Your task to perform on an android device: Search for panasonic triple a on newegg.com, select the first entry, and add it to the cart. Image 0: 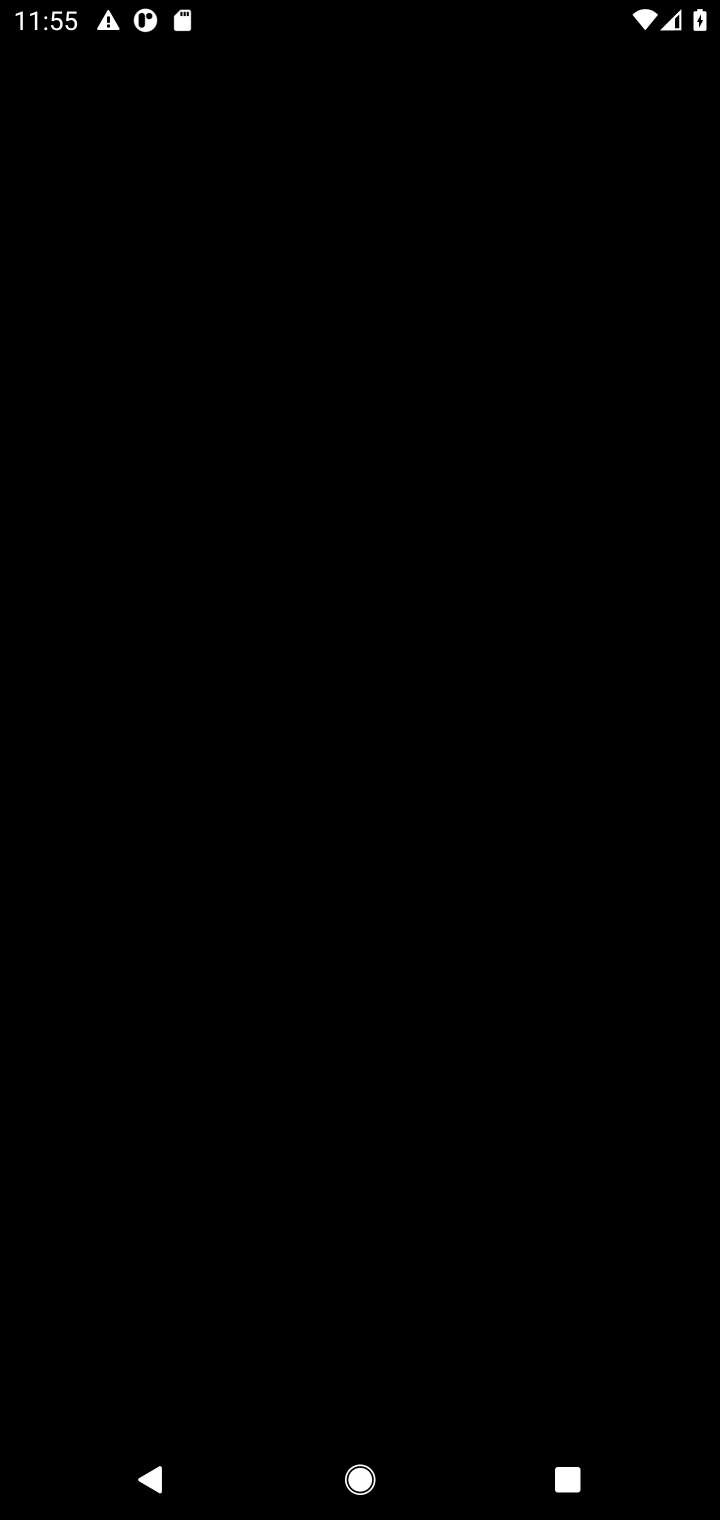
Step 0: press home button
Your task to perform on an android device: Search for panasonic triple a on newegg.com, select the first entry, and add it to the cart. Image 1: 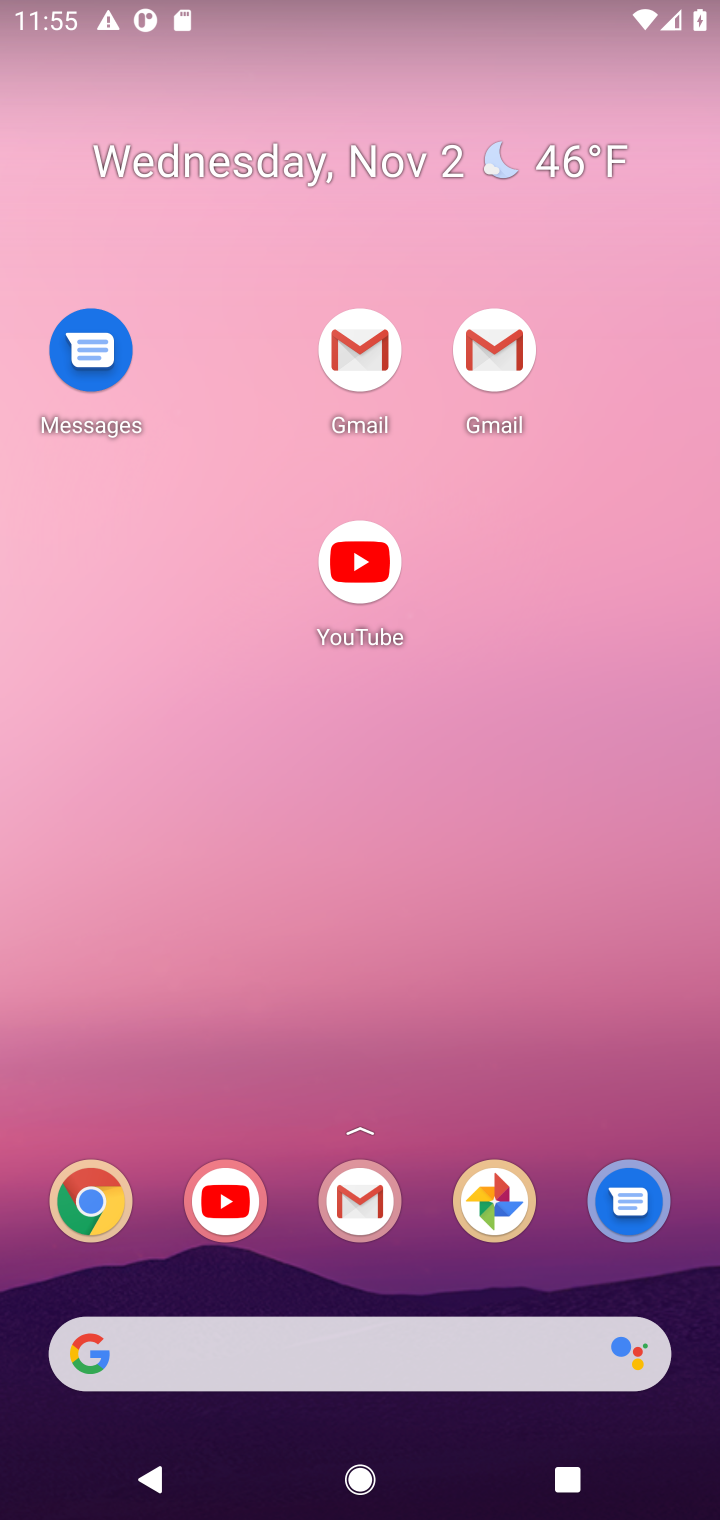
Step 1: drag from (394, 1294) to (315, 317)
Your task to perform on an android device: Search for panasonic triple a on newegg.com, select the first entry, and add it to the cart. Image 2: 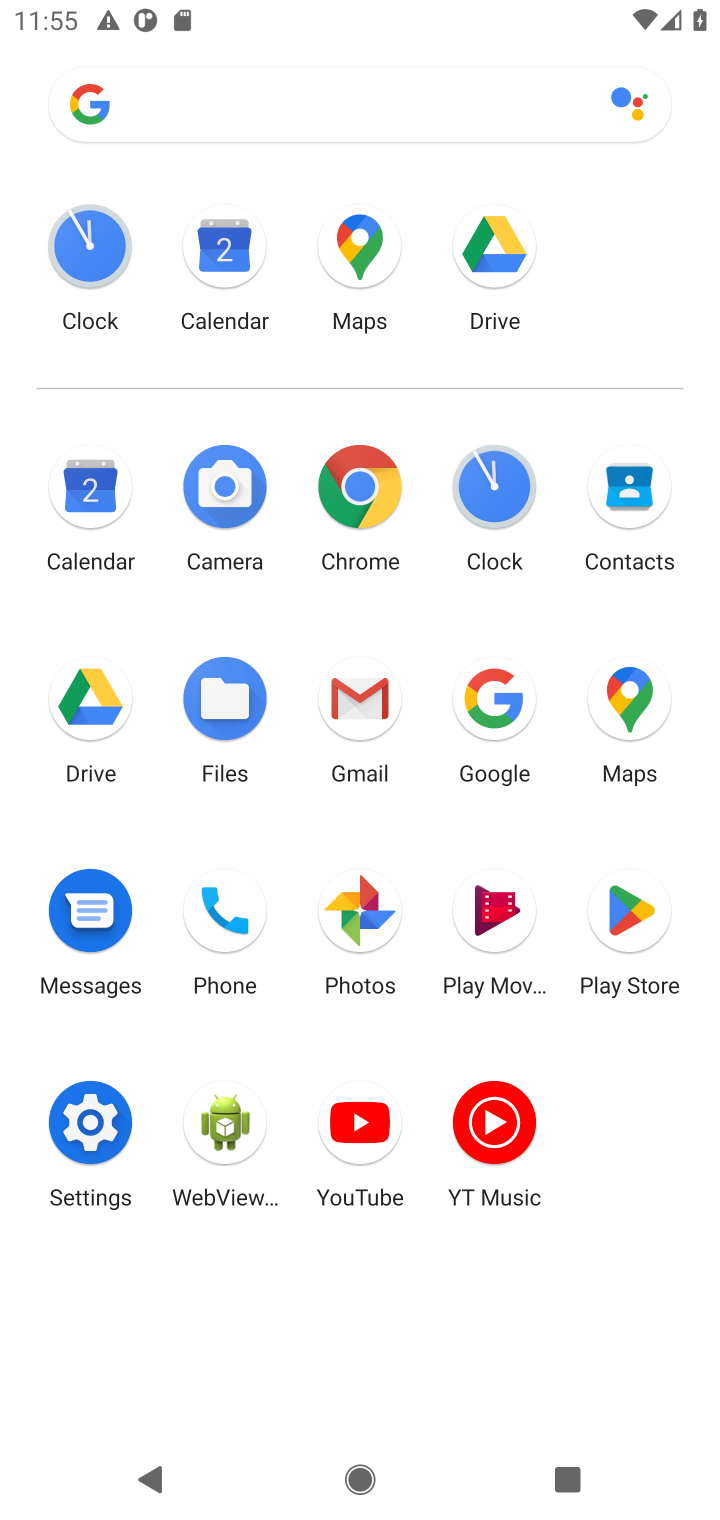
Step 2: click (366, 478)
Your task to perform on an android device: Search for panasonic triple a on newegg.com, select the first entry, and add it to the cart. Image 3: 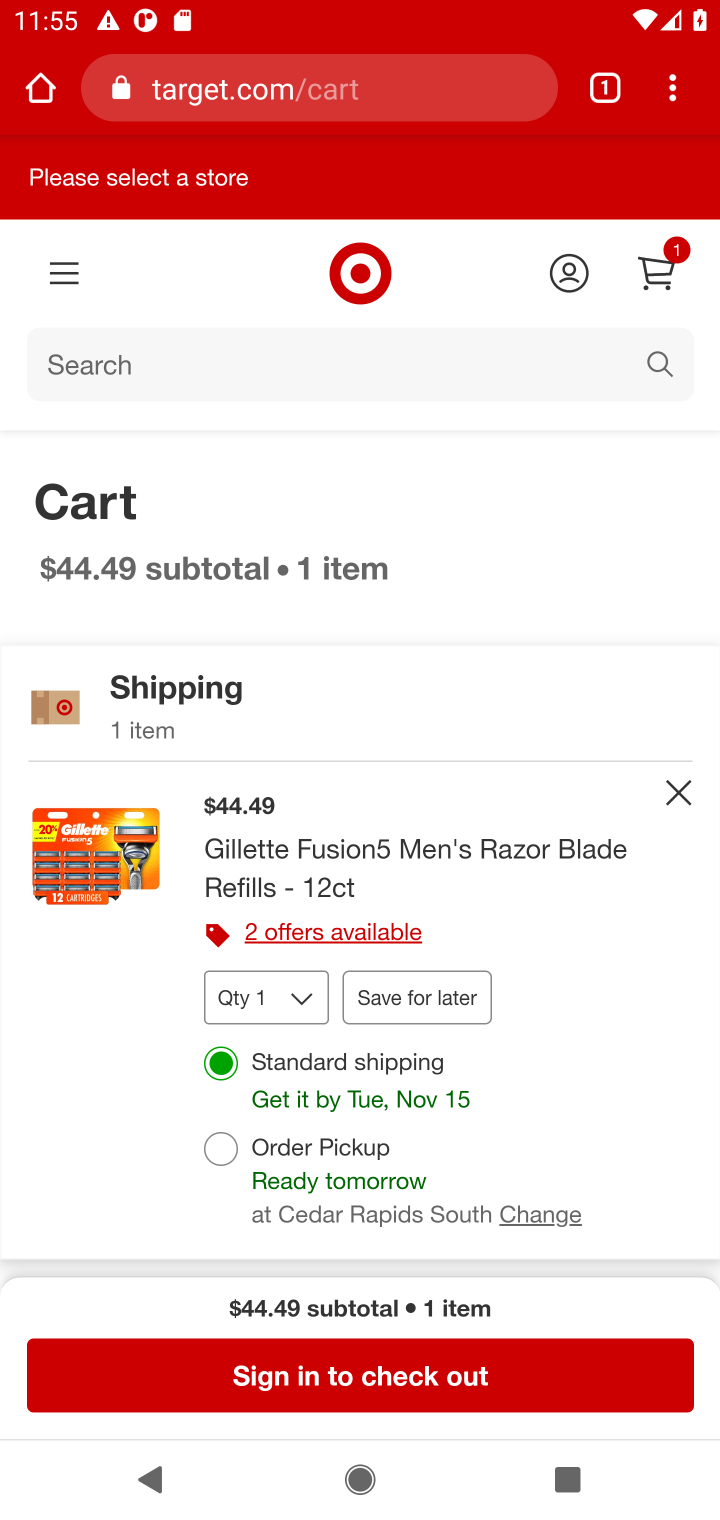
Step 3: click (336, 80)
Your task to perform on an android device: Search for panasonic triple a on newegg.com, select the first entry, and add it to the cart. Image 4: 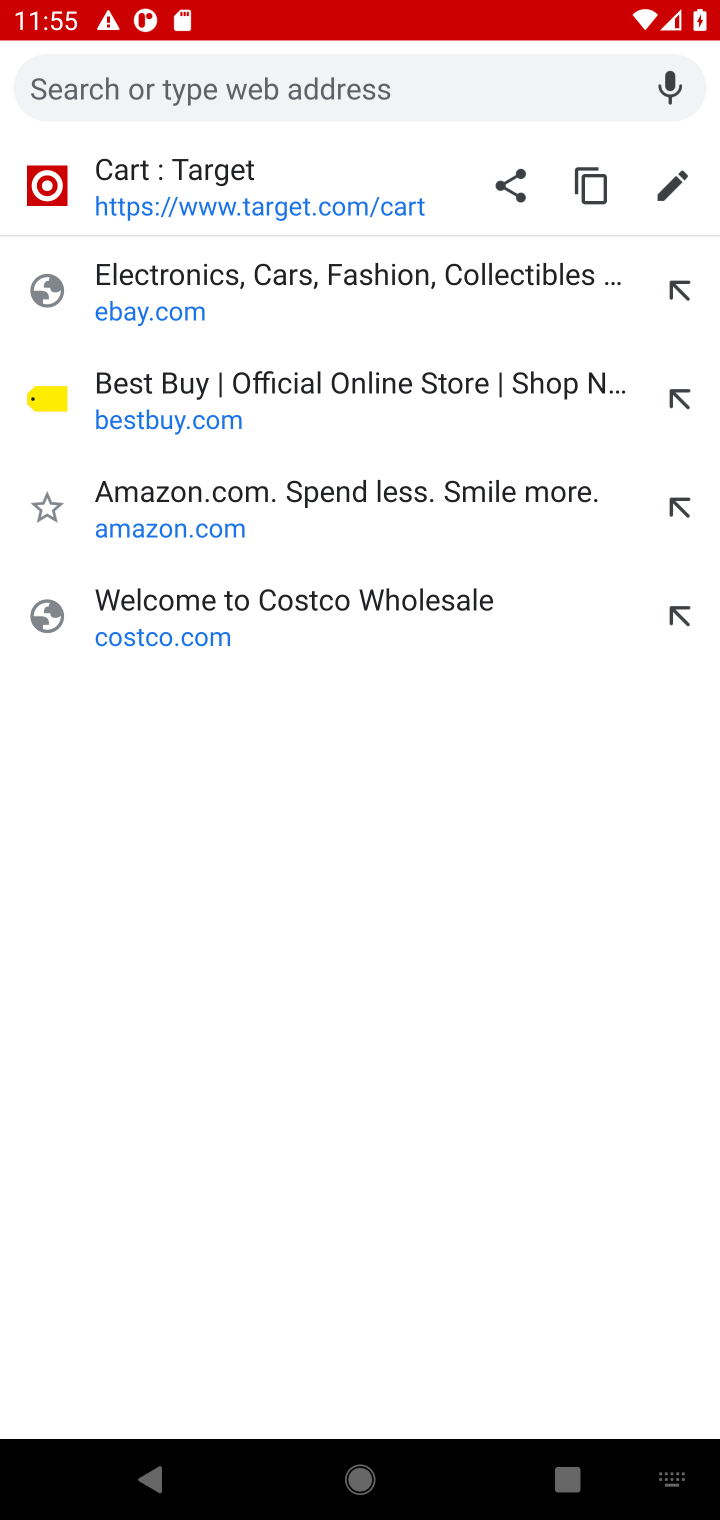
Step 4: type "newegg.com"
Your task to perform on an android device: Search for panasonic triple a on newegg.com, select the first entry, and add it to the cart. Image 5: 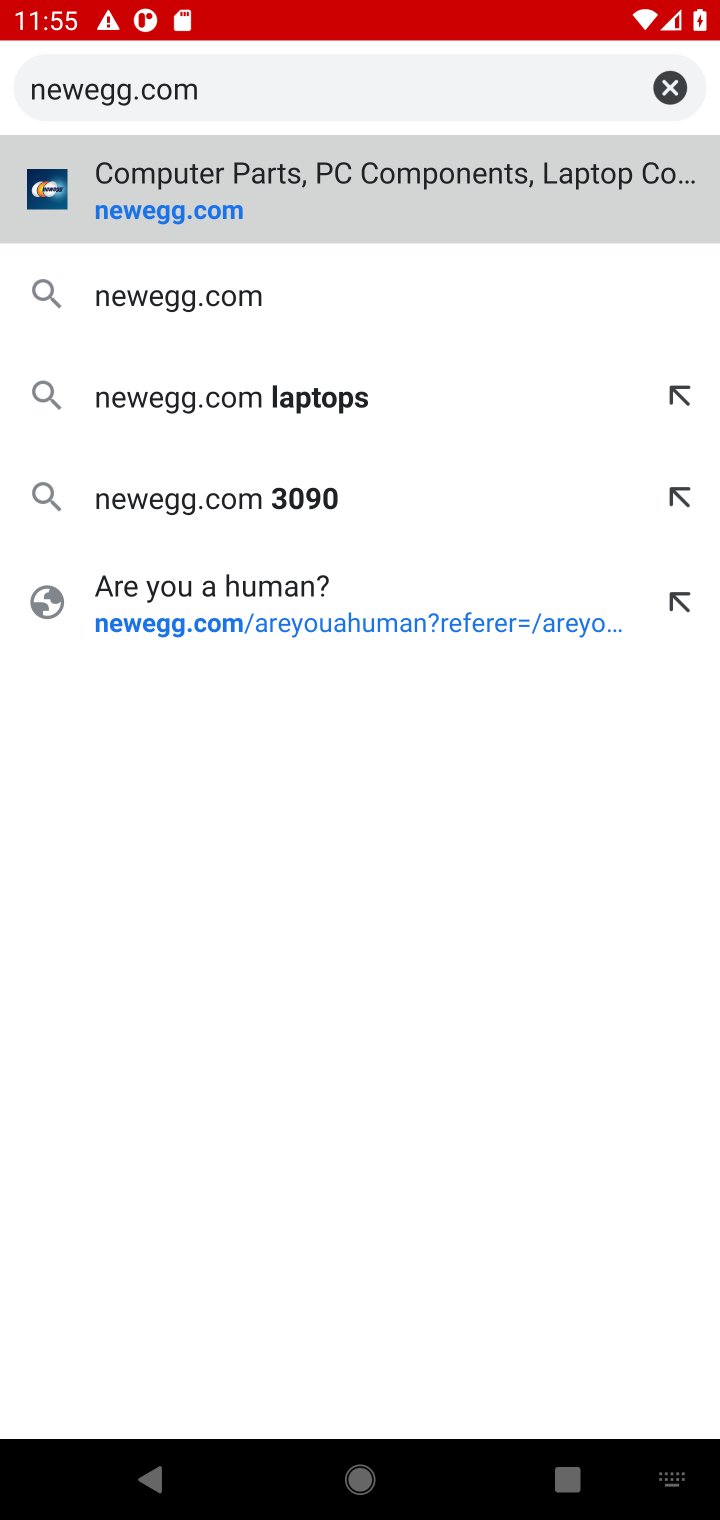
Step 5: press enter
Your task to perform on an android device: Search for panasonic triple a on newegg.com, select the first entry, and add it to the cart. Image 6: 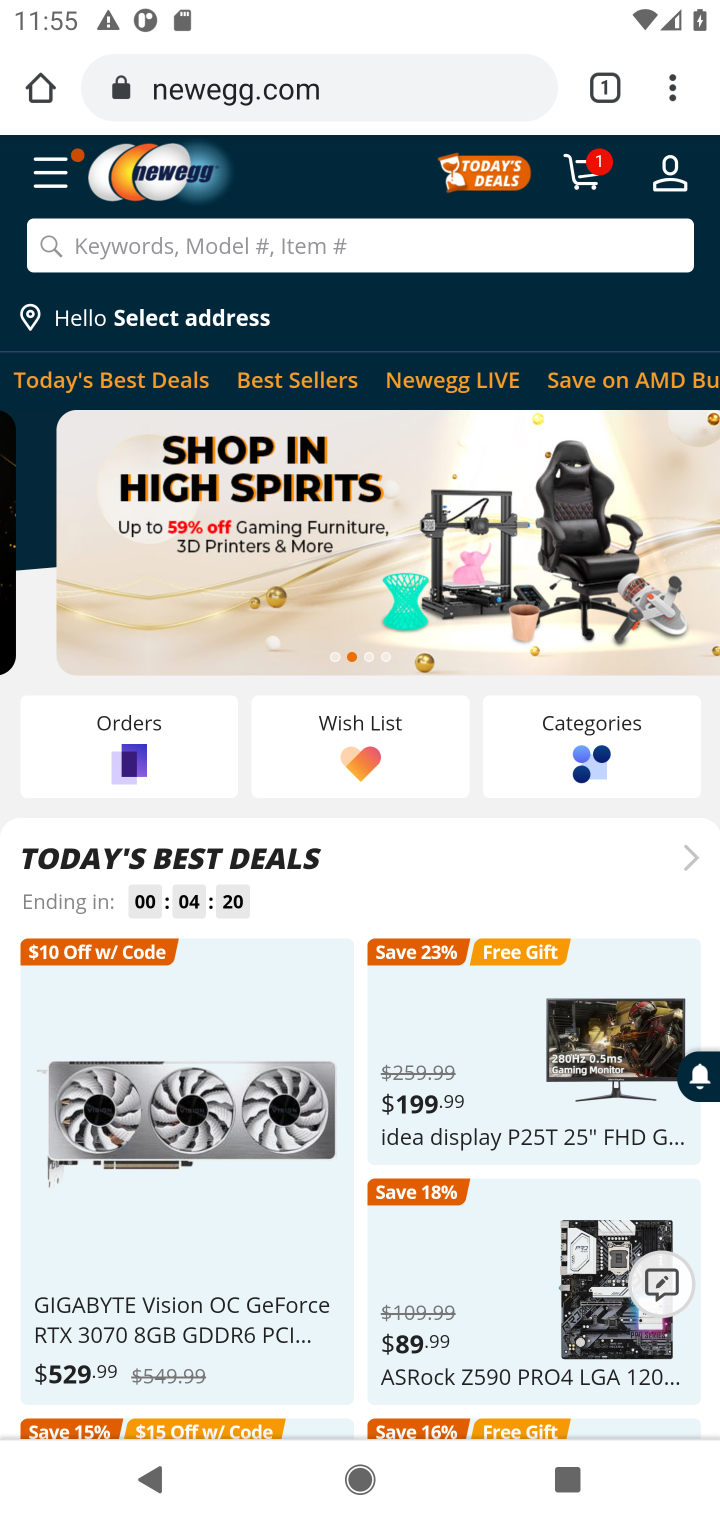
Step 6: click (487, 234)
Your task to perform on an android device: Search for panasonic triple a on newegg.com, select the first entry, and add it to the cart. Image 7: 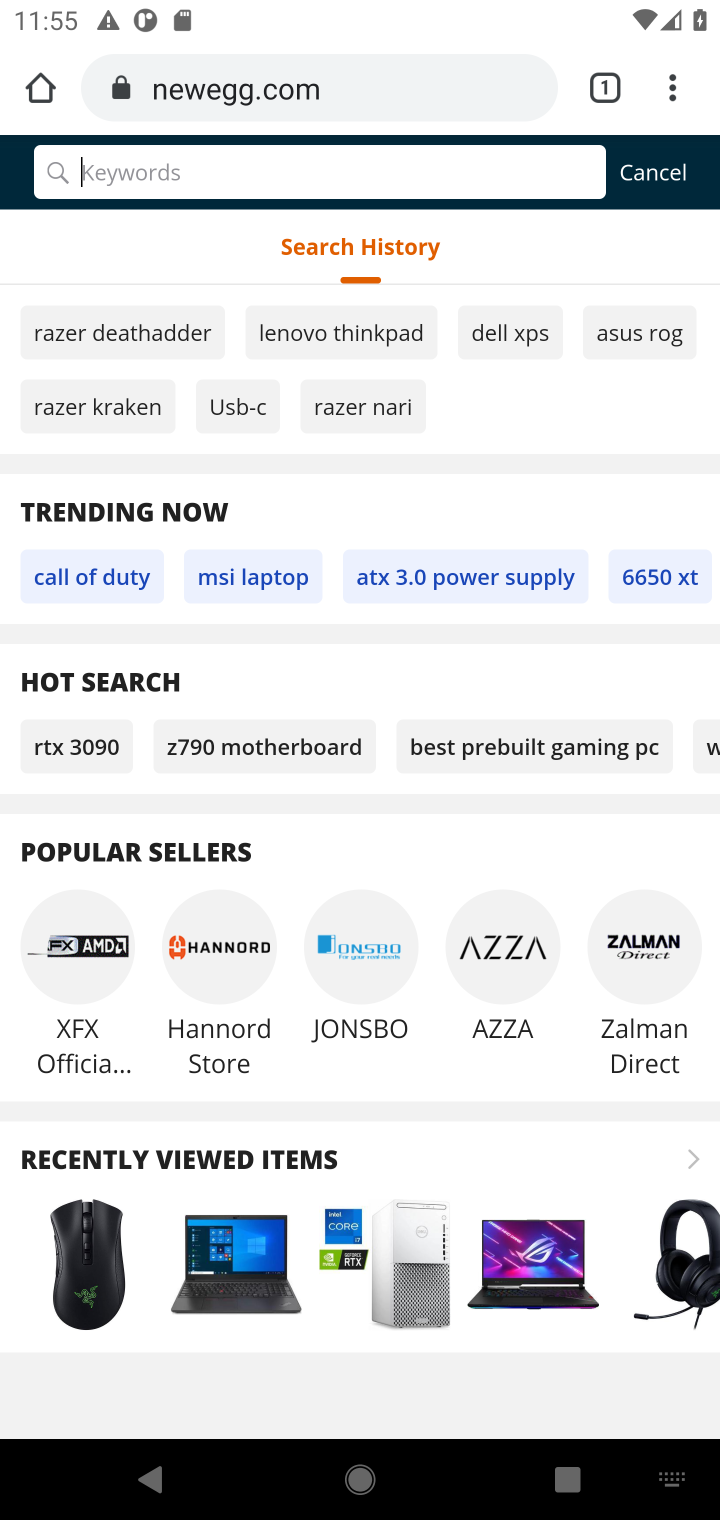
Step 7: type "panasonic triple a"
Your task to perform on an android device: Search for panasonic triple a on newegg.com, select the first entry, and add it to the cart. Image 8: 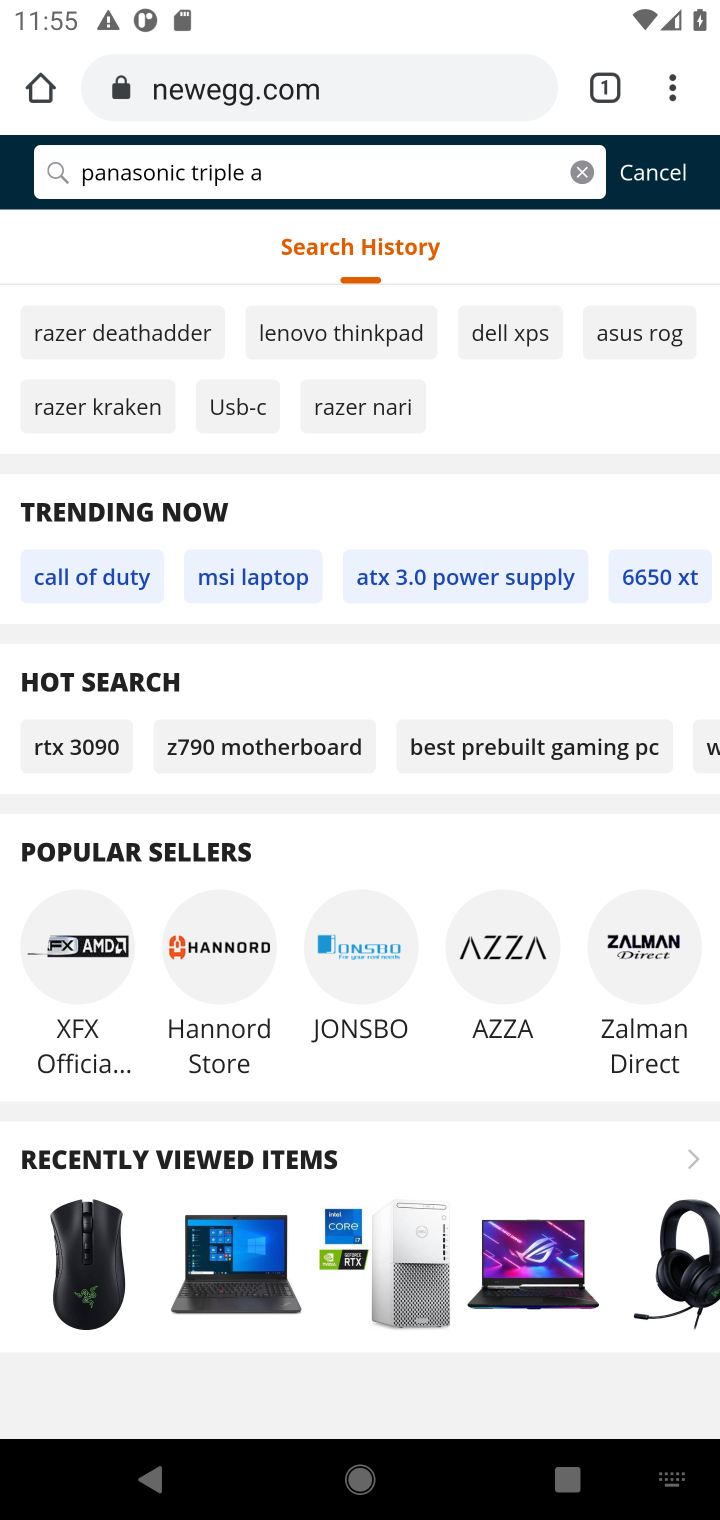
Step 8: press enter
Your task to perform on an android device: Search for panasonic triple a on newegg.com, select the first entry, and add it to the cart. Image 9: 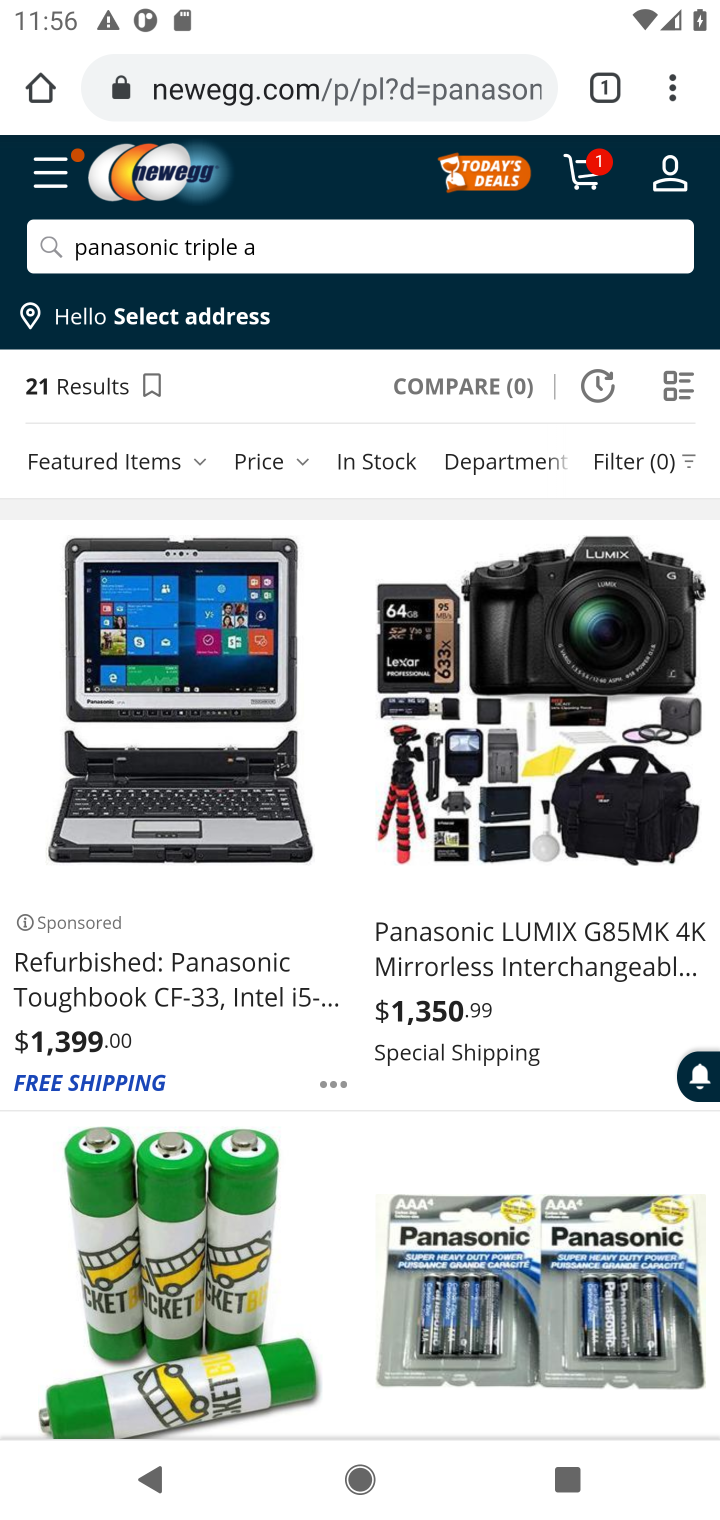
Step 9: drag from (337, 1218) to (375, 867)
Your task to perform on an android device: Search for panasonic triple a on newegg.com, select the first entry, and add it to the cart. Image 10: 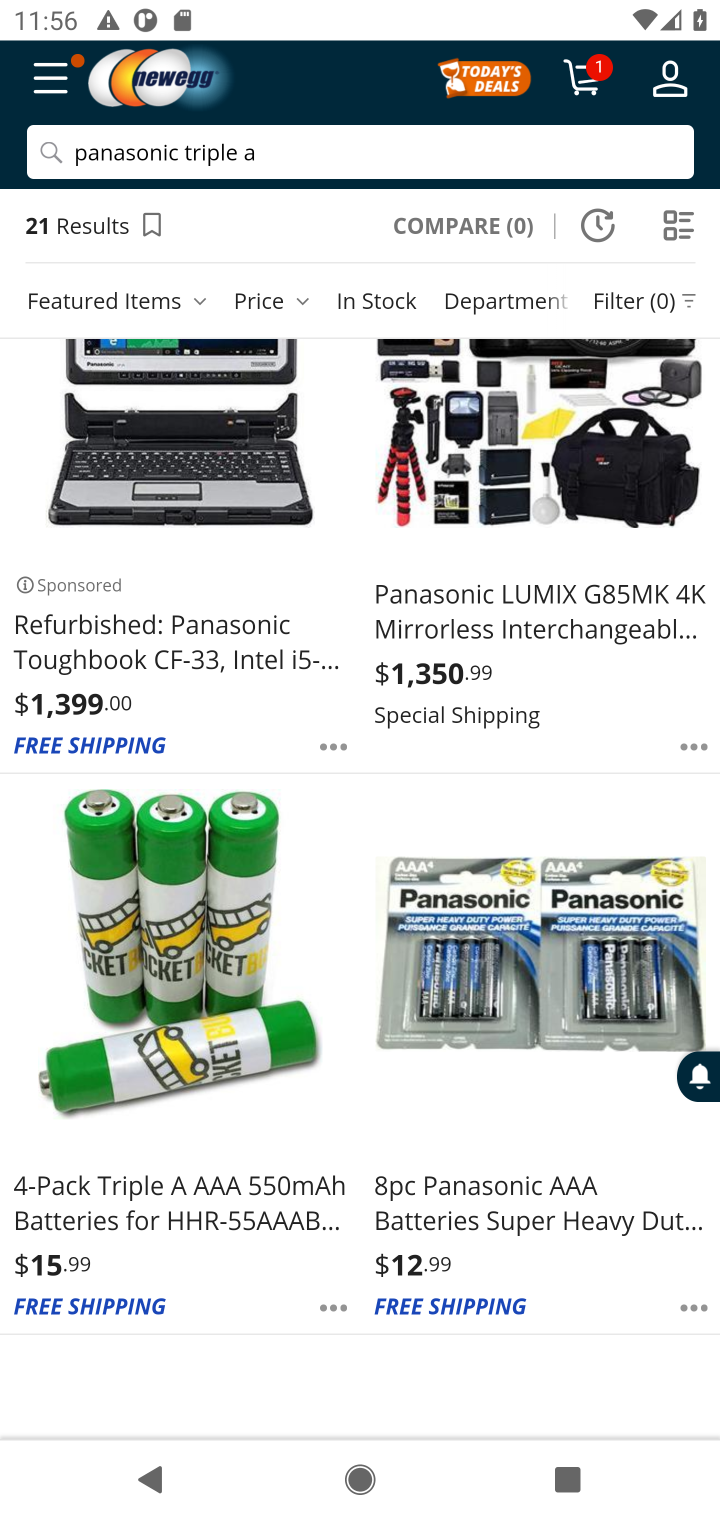
Step 10: click (527, 1021)
Your task to perform on an android device: Search for panasonic triple a on newegg.com, select the first entry, and add it to the cart. Image 11: 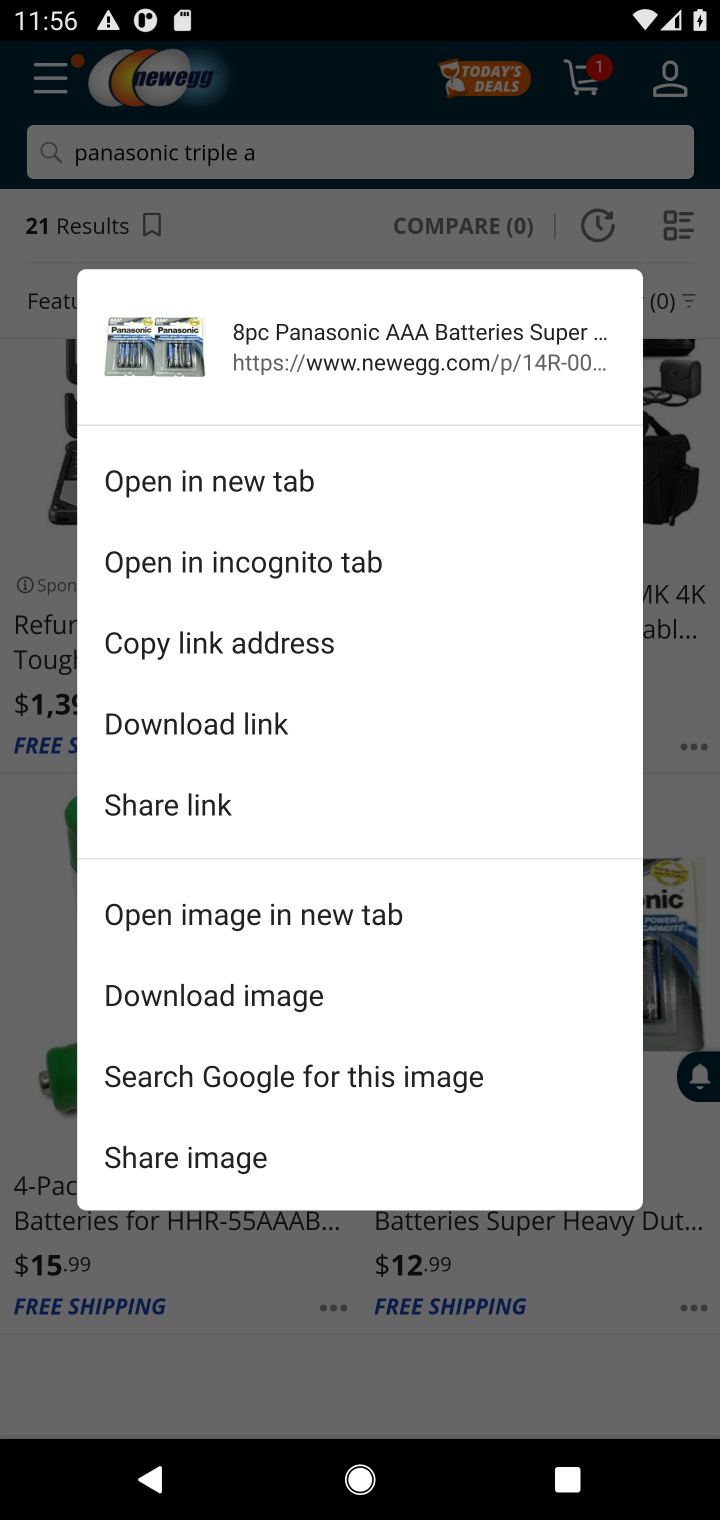
Step 11: click (657, 977)
Your task to perform on an android device: Search for panasonic triple a on newegg.com, select the first entry, and add it to the cart. Image 12: 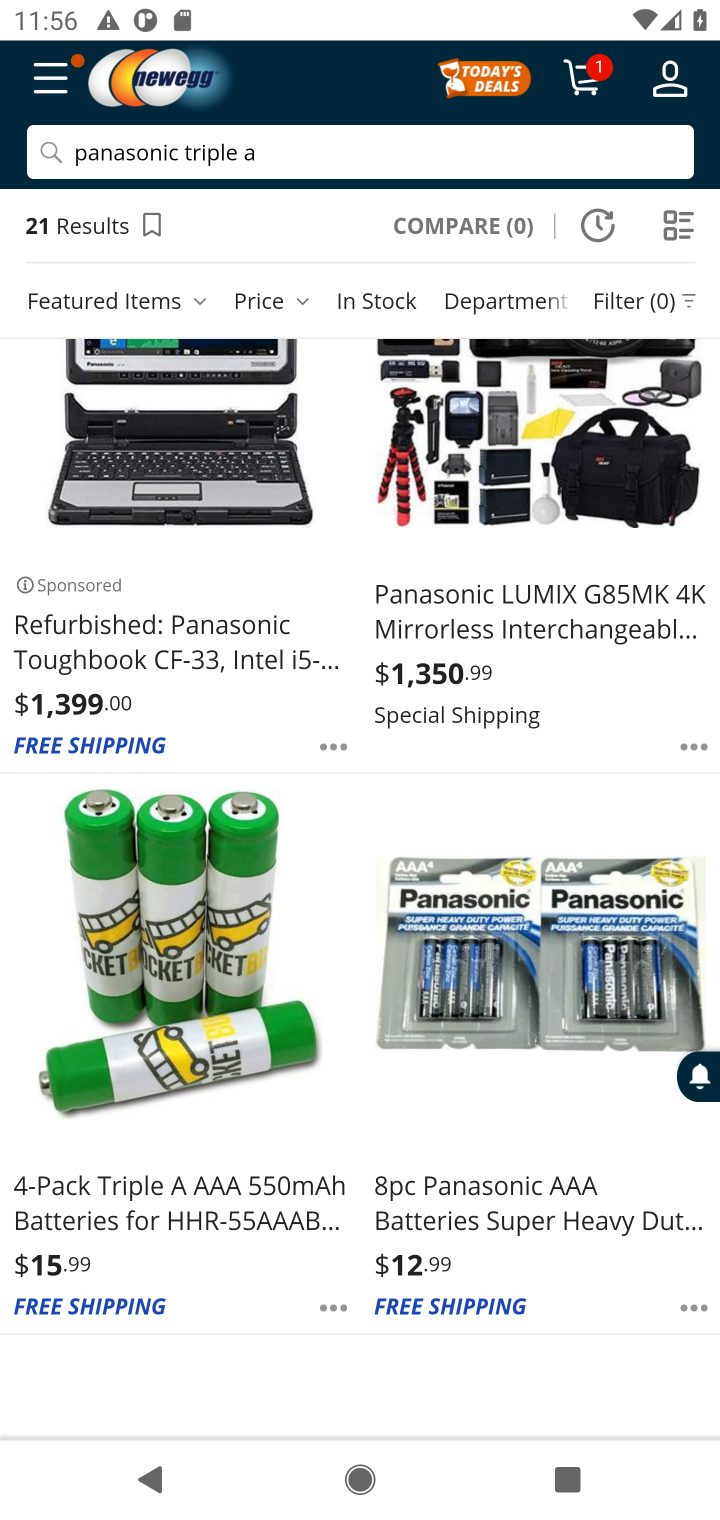
Step 12: click (657, 977)
Your task to perform on an android device: Search for panasonic triple a on newegg.com, select the first entry, and add it to the cart. Image 13: 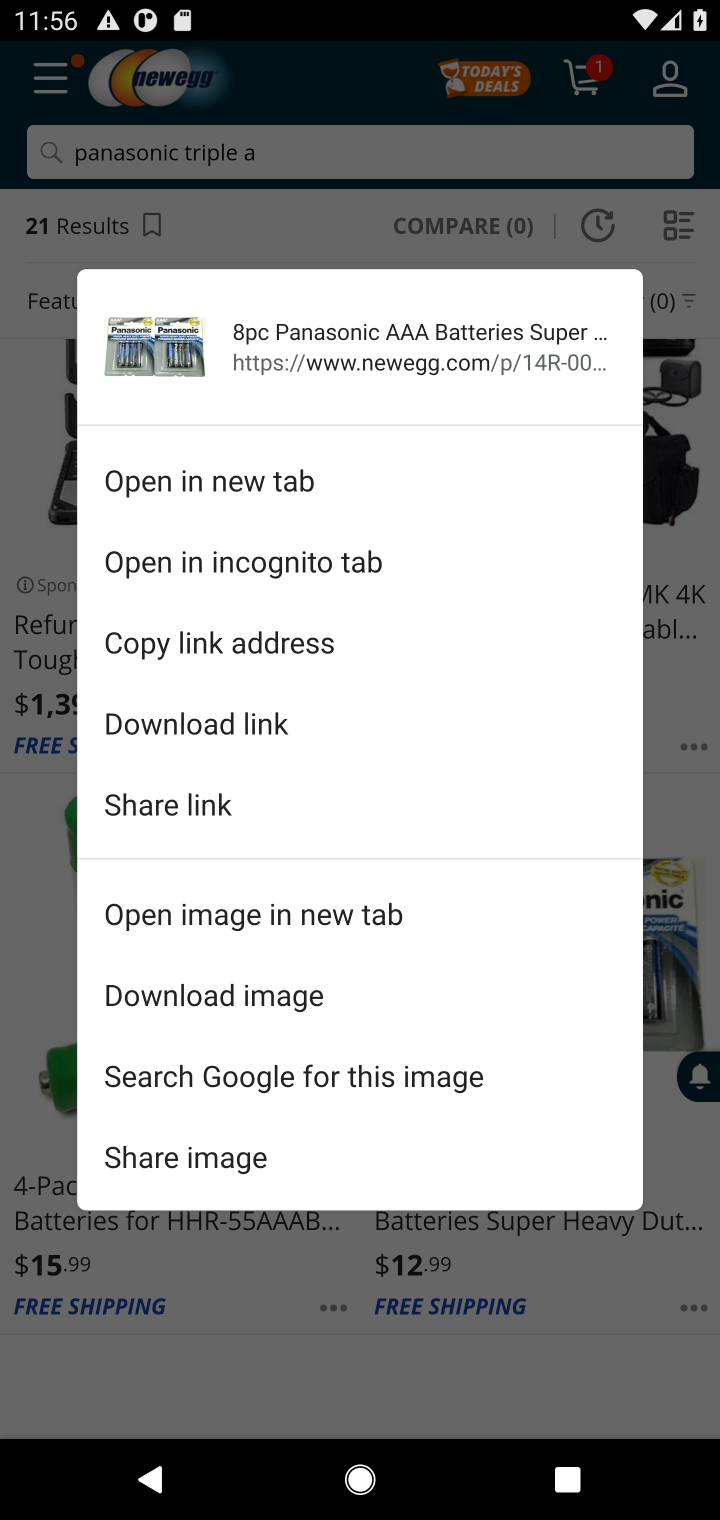
Step 13: click (657, 977)
Your task to perform on an android device: Search for panasonic triple a on newegg.com, select the first entry, and add it to the cart. Image 14: 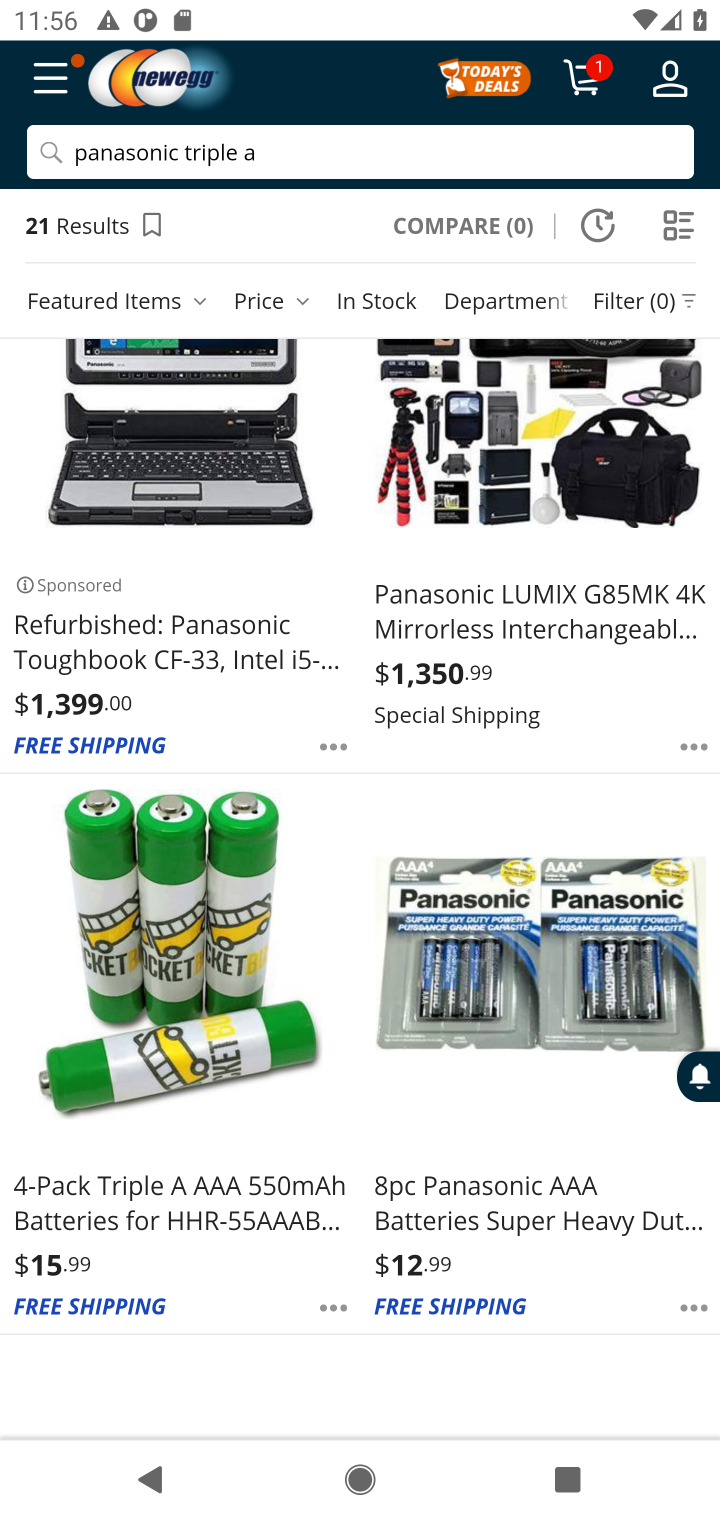
Step 14: click (585, 965)
Your task to perform on an android device: Search for panasonic triple a on newegg.com, select the first entry, and add it to the cart. Image 15: 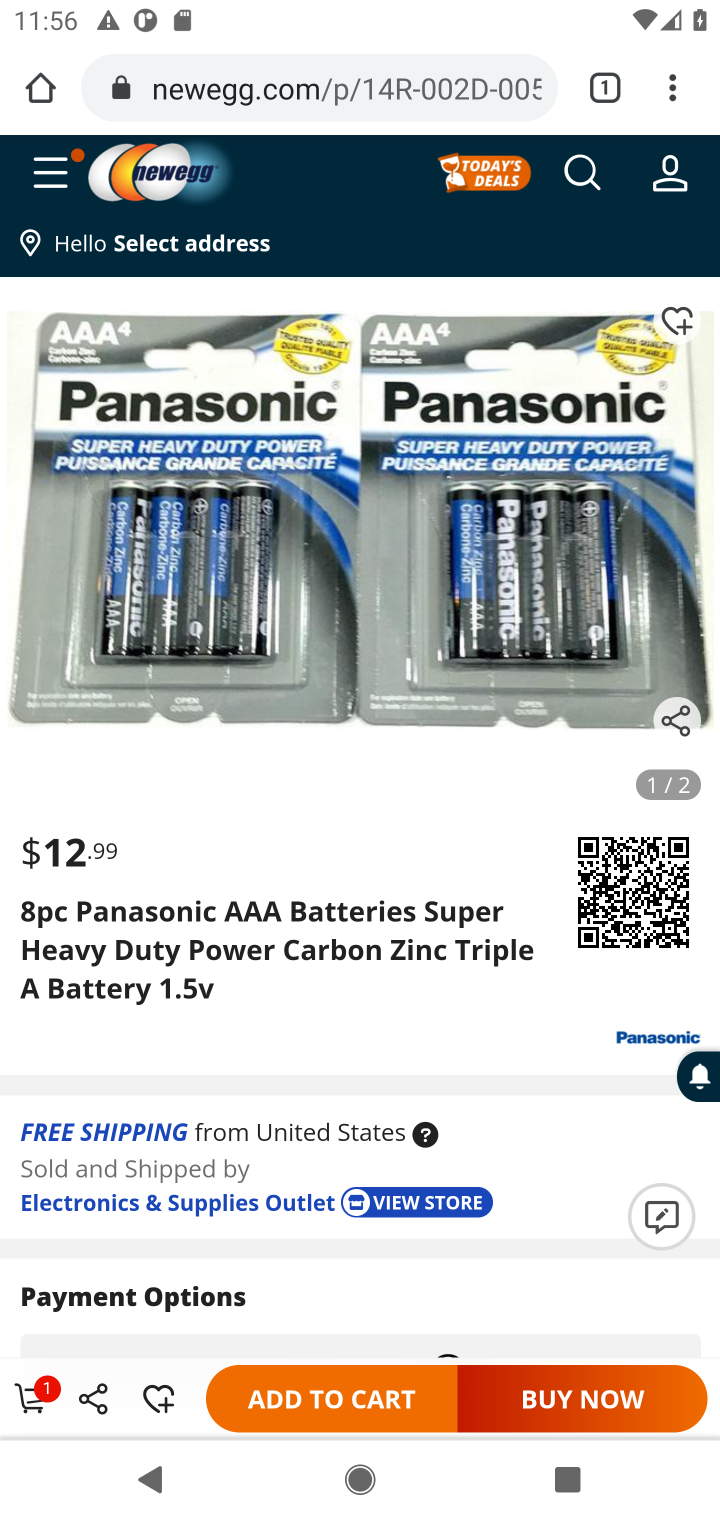
Step 15: click (330, 1391)
Your task to perform on an android device: Search for panasonic triple a on newegg.com, select the first entry, and add it to the cart. Image 16: 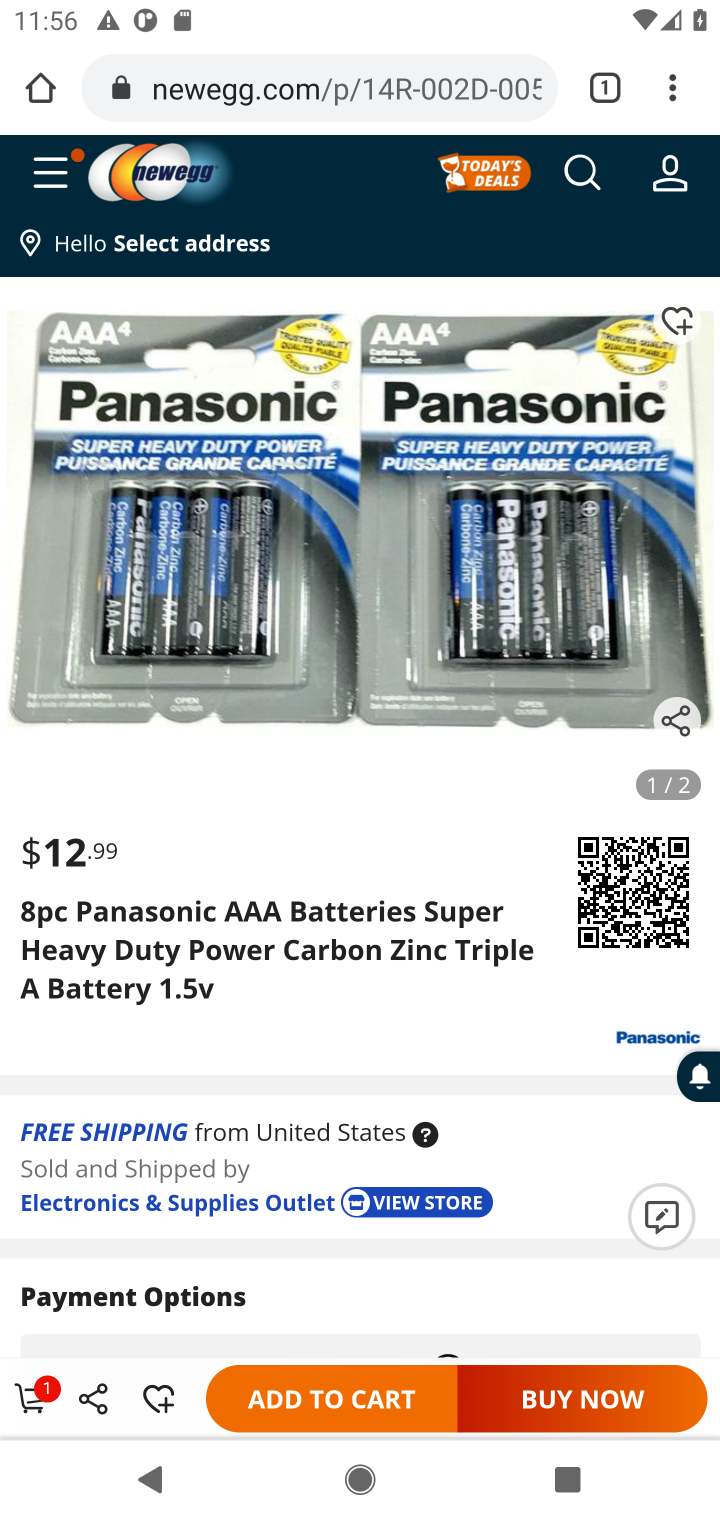
Step 16: click (304, 1390)
Your task to perform on an android device: Search for panasonic triple a on newegg.com, select the first entry, and add it to the cart. Image 17: 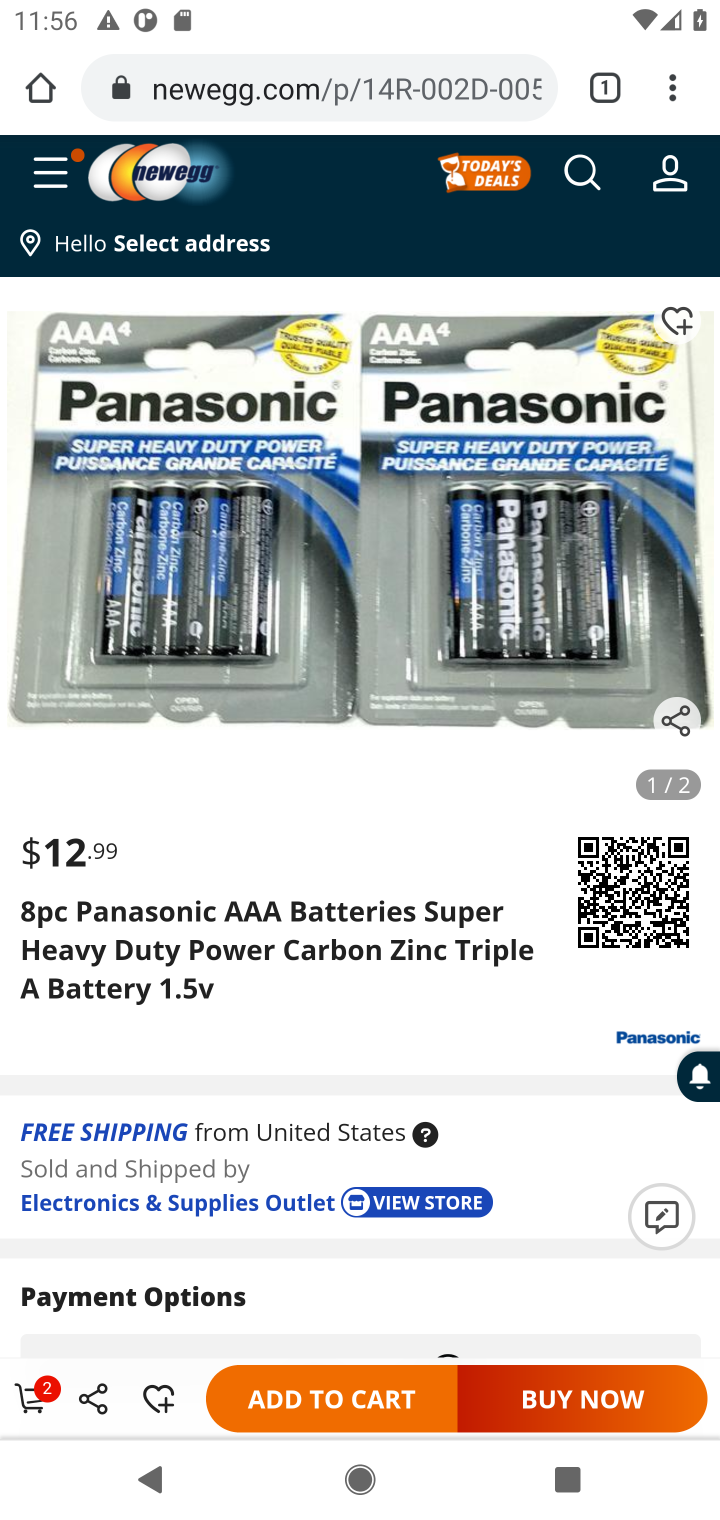
Step 17: task complete